Your task to perform on an android device: Go to Reddit.com Image 0: 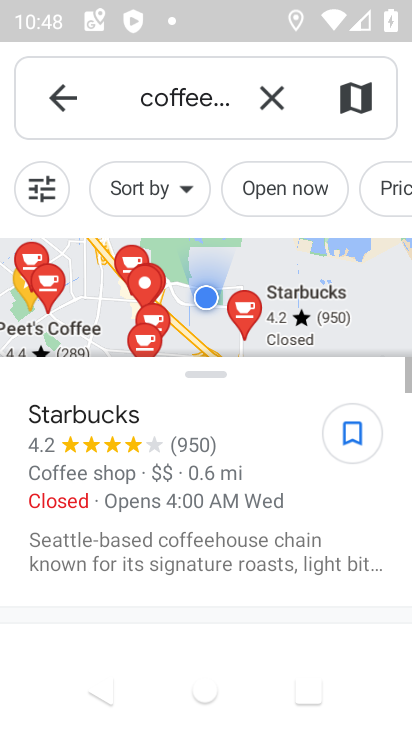
Step 0: click (226, 101)
Your task to perform on an android device: Go to Reddit.com Image 1: 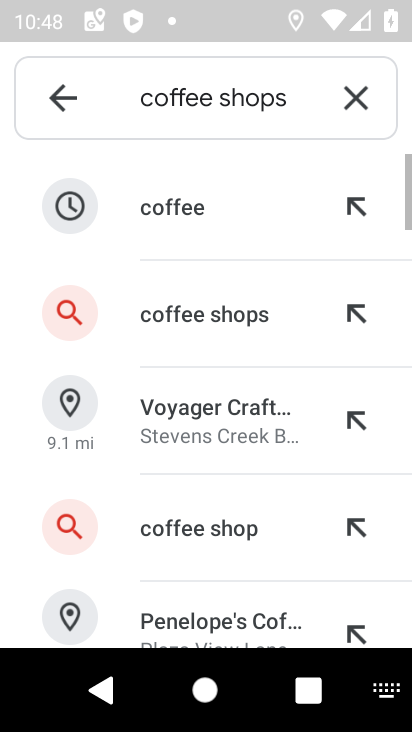
Step 1: press home button
Your task to perform on an android device: Go to Reddit.com Image 2: 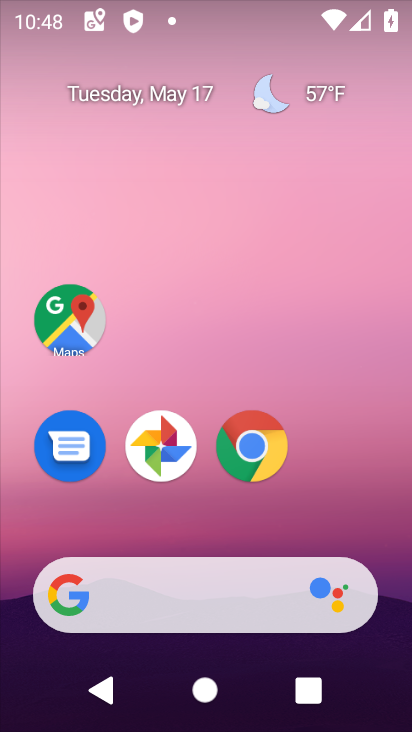
Step 2: click (271, 436)
Your task to perform on an android device: Go to Reddit.com Image 3: 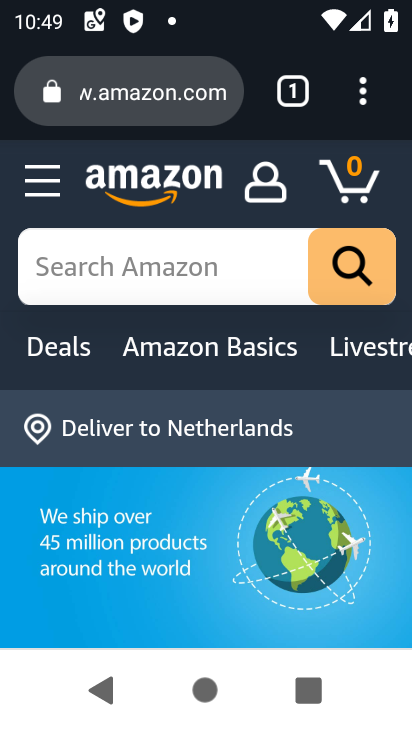
Step 3: click (122, 93)
Your task to perform on an android device: Go to Reddit.com Image 4: 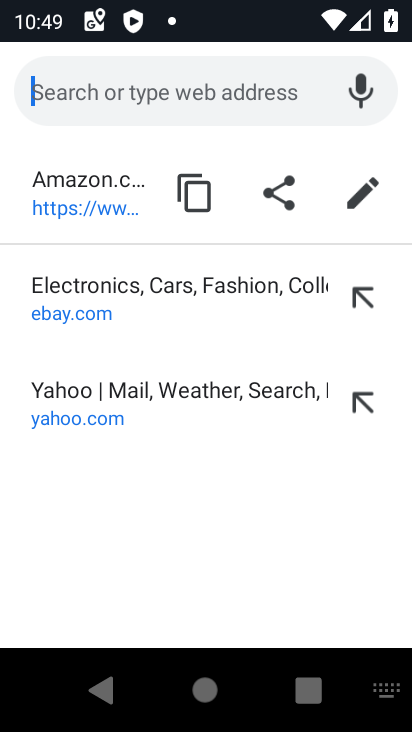
Step 4: type "reddit.com"
Your task to perform on an android device: Go to Reddit.com Image 5: 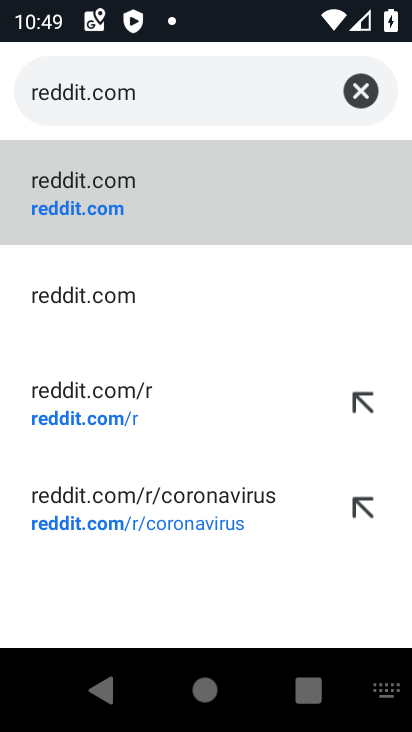
Step 5: click (218, 207)
Your task to perform on an android device: Go to Reddit.com Image 6: 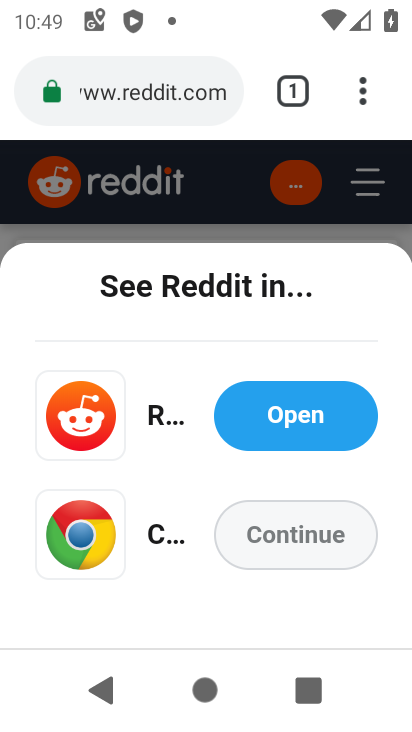
Step 6: click (305, 547)
Your task to perform on an android device: Go to Reddit.com Image 7: 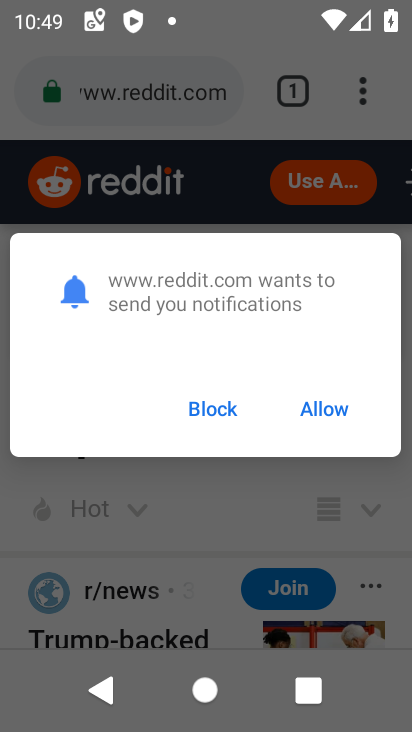
Step 7: task complete